Your task to perform on an android device: Open privacy settings Image 0: 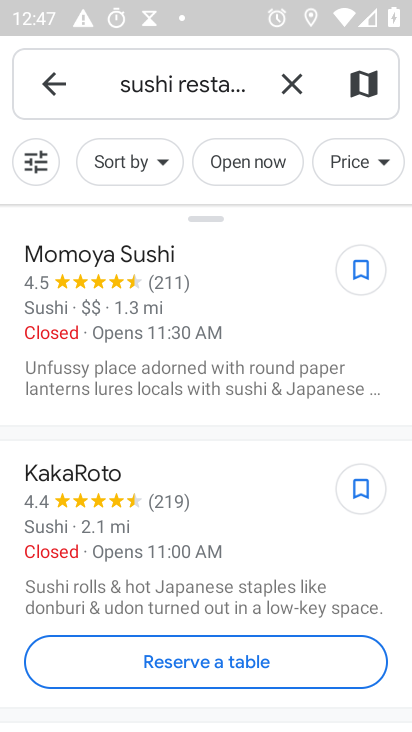
Step 0: press home button
Your task to perform on an android device: Open privacy settings Image 1: 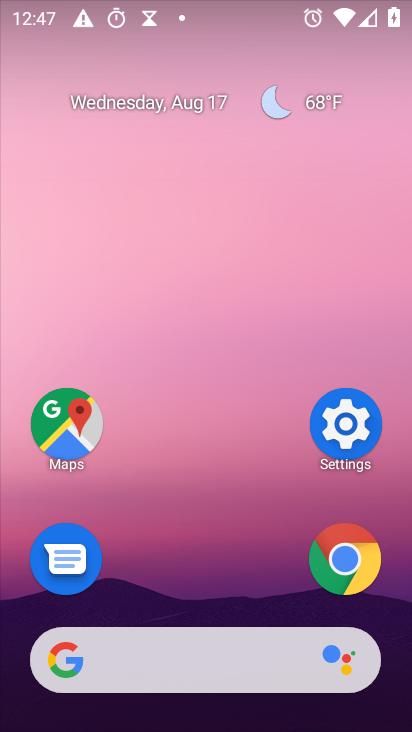
Step 1: click (352, 419)
Your task to perform on an android device: Open privacy settings Image 2: 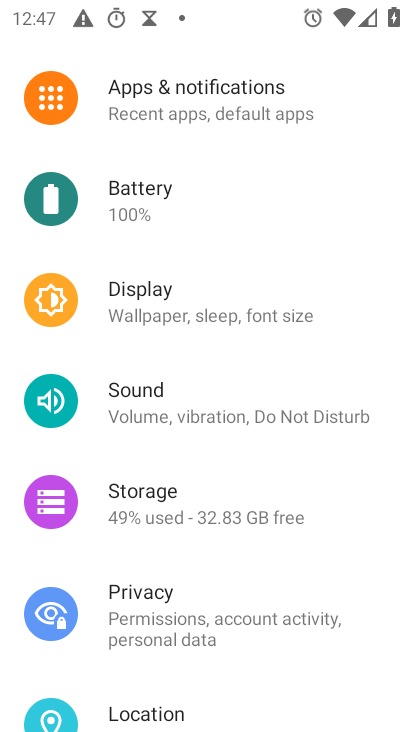
Step 2: click (168, 609)
Your task to perform on an android device: Open privacy settings Image 3: 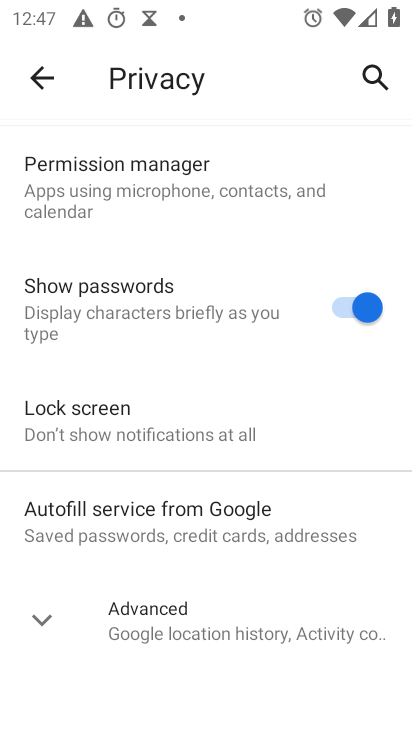
Step 3: task complete